Your task to perform on an android device: open a bookmark in the chrome app Image 0: 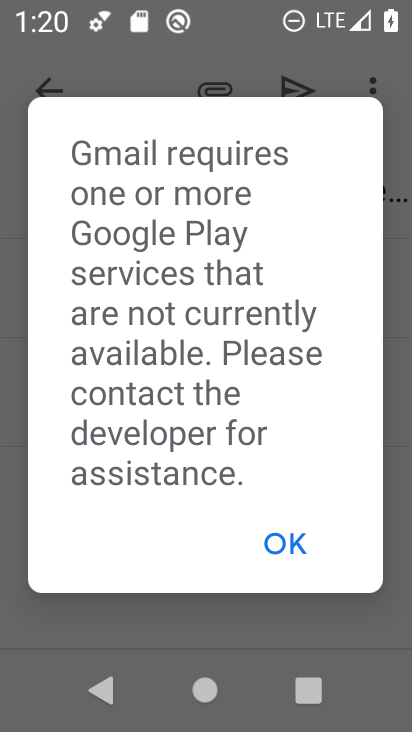
Step 0: press home button
Your task to perform on an android device: open a bookmark in the chrome app Image 1: 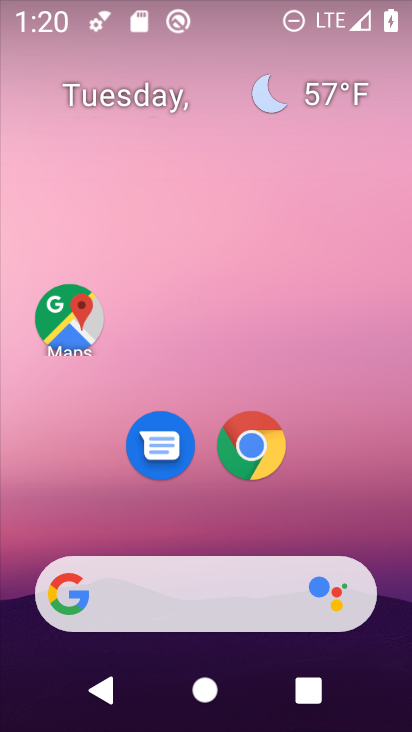
Step 1: drag from (391, 544) to (377, 213)
Your task to perform on an android device: open a bookmark in the chrome app Image 2: 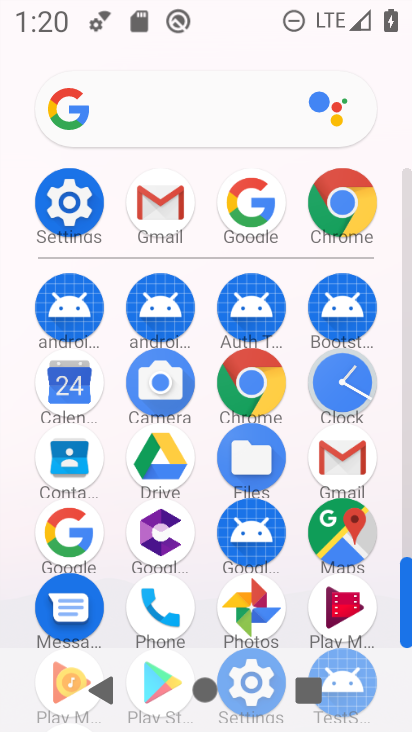
Step 2: click (248, 391)
Your task to perform on an android device: open a bookmark in the chrome app Image 3: 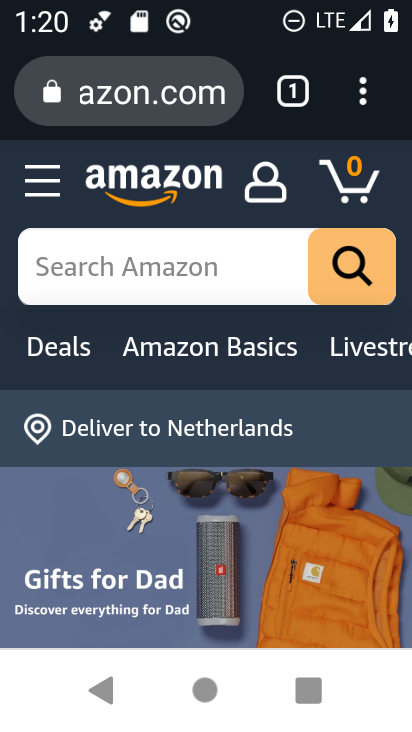
Step 3: click (361, 99)
Your task to perform on an android device: open a bookmark in the chrome app Image 4: 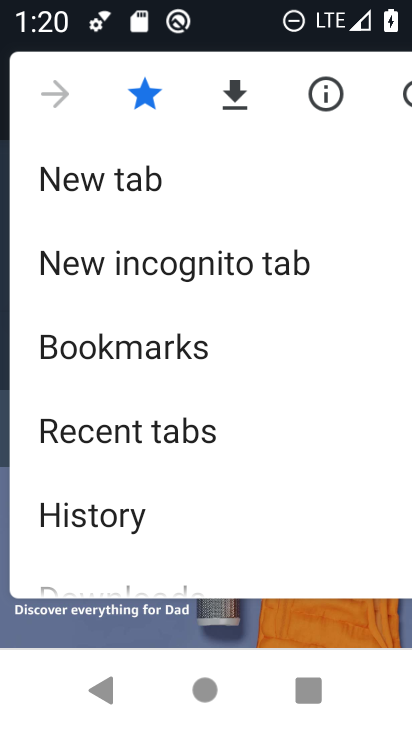
Step 4: click (237, 363)
Your task to perform on an android device: open a bookmark in the chrome app Image 5: 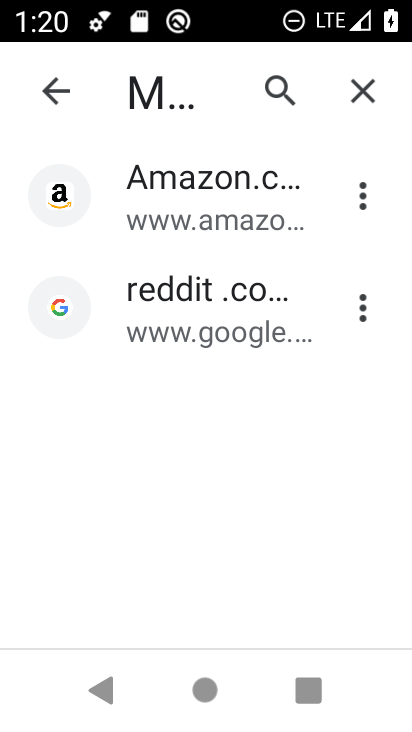
Step 5: click (238, 301)
Your task to perform on an android device: open a bookmark in the chrome app Image 6: 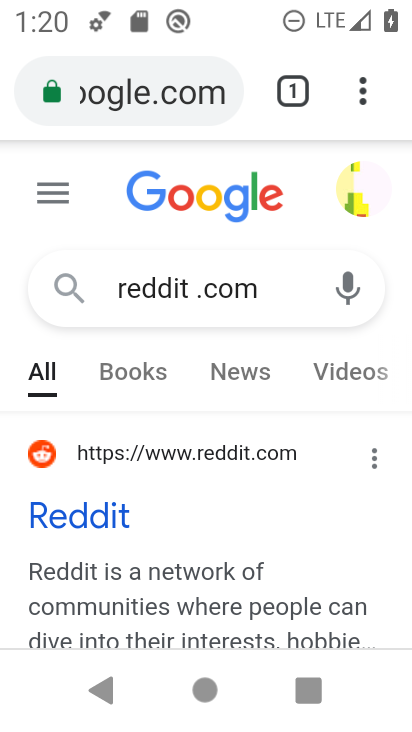
Step 6: task complete